Your task to perform on an android device: toggle notification dots Image 0: 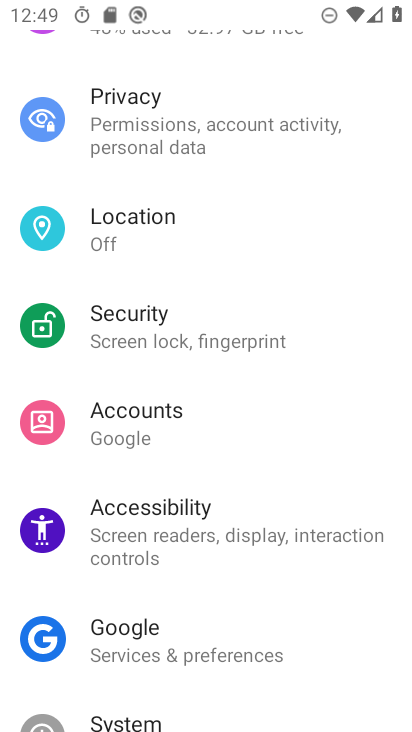
Step 0: drag from (204, 119) to (183, 510)
Your task to perform on an android device: toggle notification dots Image 1: 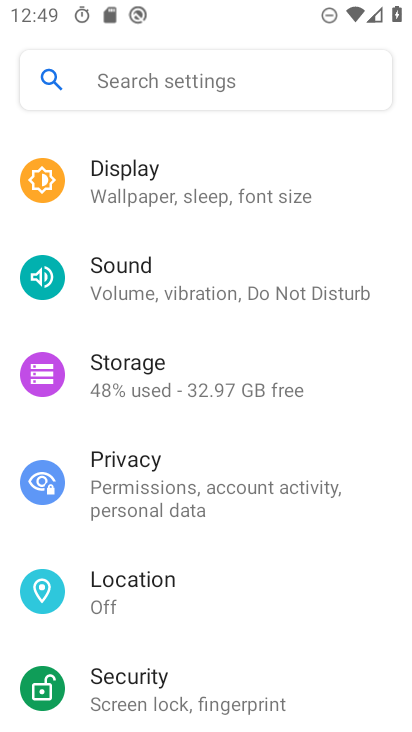
Step 1: drag from (184, 168) to (188, 556)
Your task to perform on an android device: toggle notification dots Image 2: 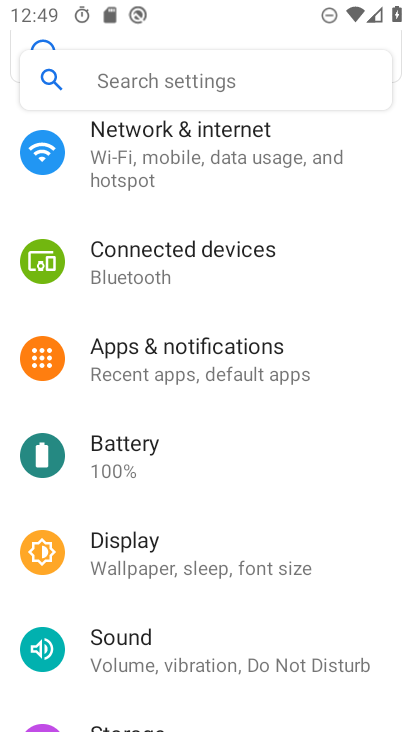
Step 2: click (210, 365)
Your task to perform on an android device: toggle notification dots Image 3: 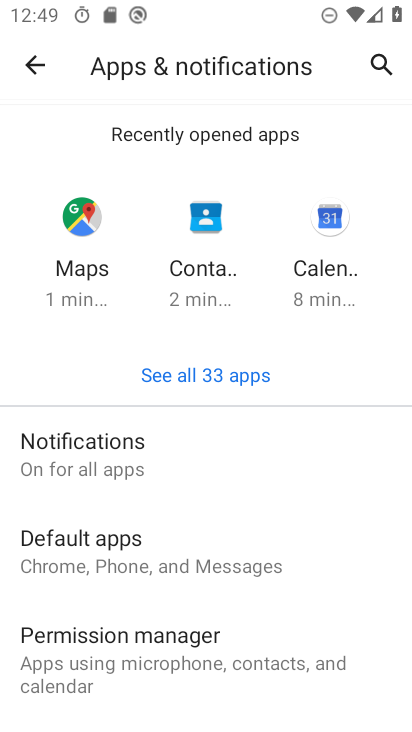
Step 3: click (144, 478)
Your task to perform on an android device: toggle notification dots Image 4: 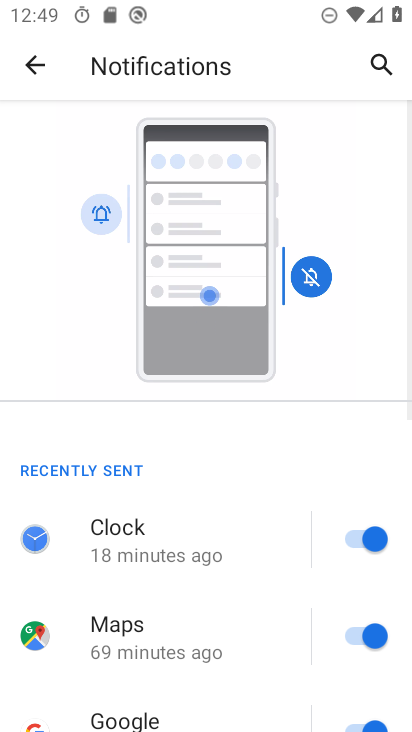
Step 4: drag from (103, 633) to (291, 21)
Your task to perform on an android device: toggle notification dots Image 5: 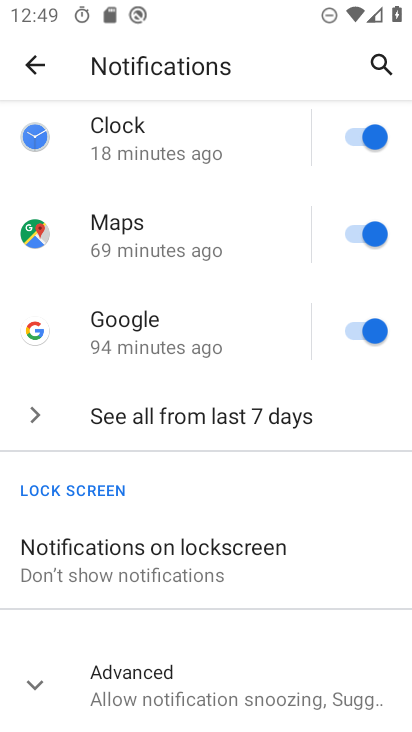
Step 5: click (186, 680)
Your task to perform on an android device: toggle notification dots Image 6: 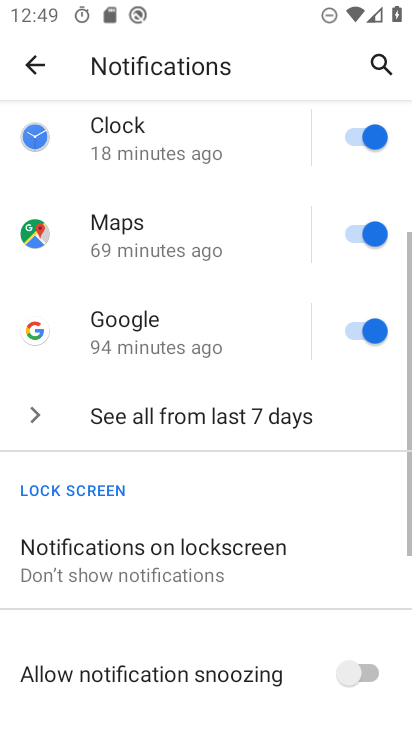
Step 6: drag from (186, 680) to (237, 377)
Your task to perform on an android device: toggle notification dots Image 7: 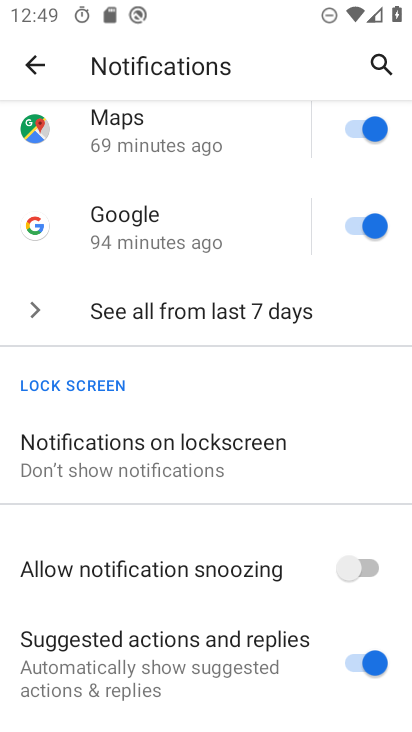
Step 7: drag from (127, 646) to (204, 64)
Your task to perform on an android device: toggle notification dots Image 8: 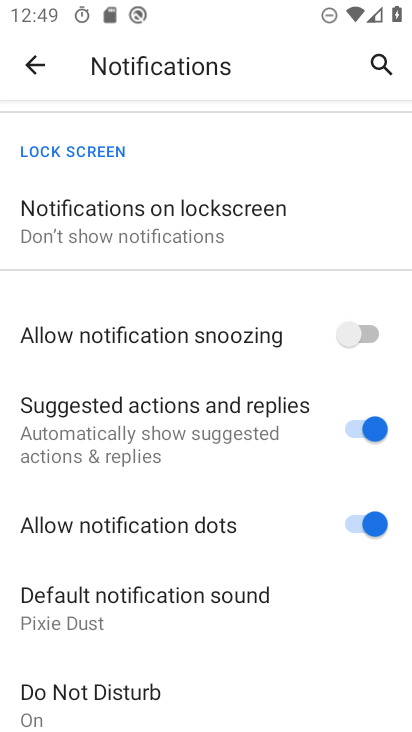
Step 8: click (360, 522)
Your task to perform on an android device: toggle notification dots Image 9: 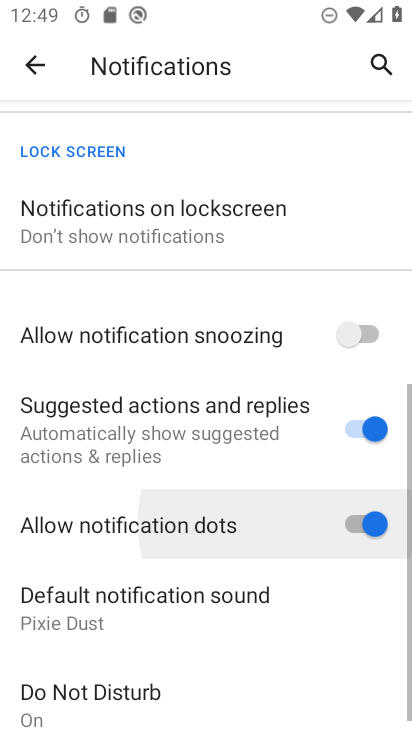
Step 9: click (360, 522)
Your task to perform on an android device: toggle notification dots Image 10: 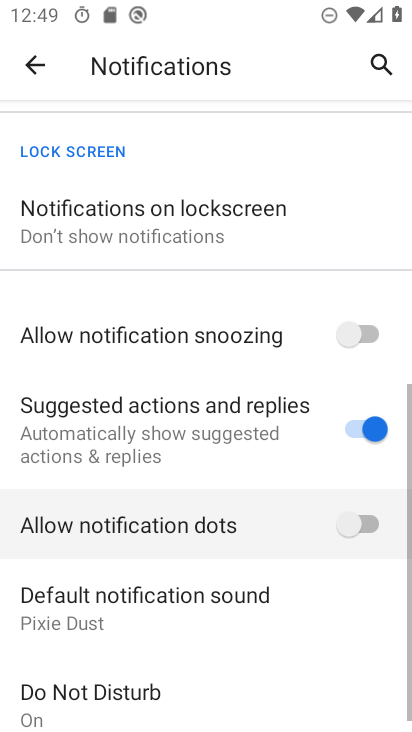
Step 10: click (360, 522)
Your task to perform on an android device: toggle notification dots Image 11: 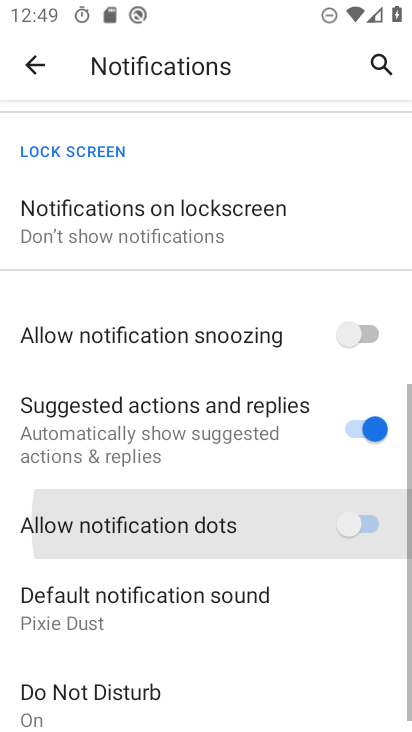
Step 11: click (360, 522)
Your task to perform on an android device: toggle notification dots Image 12: 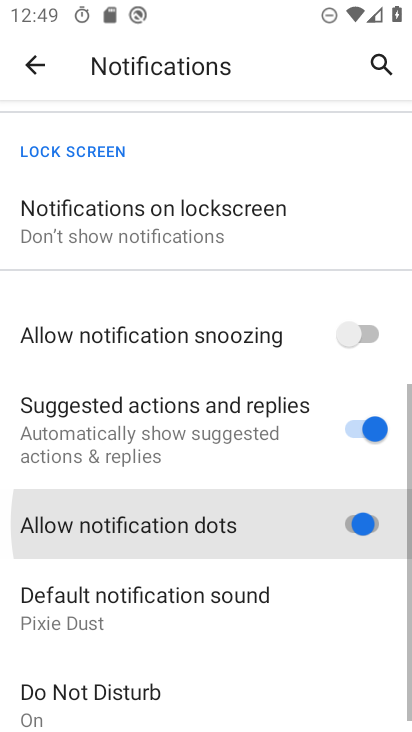
Step 12: click (360, 522)
Your task to perform on an android device: toggle notification dots Image 13: 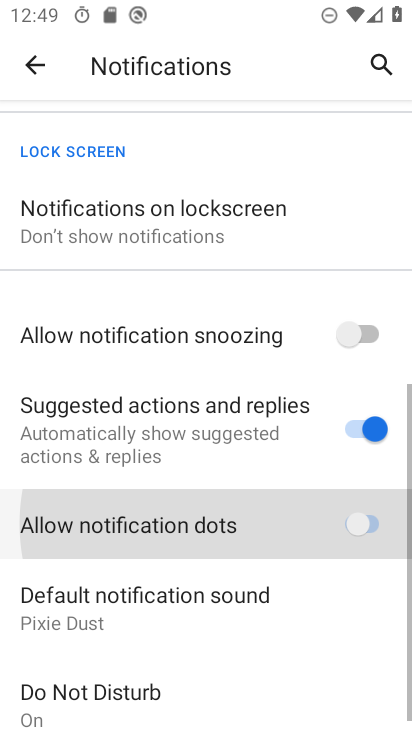
Step 13: click (360, 522)
Your task to perform on an android device: toggle notification dots Image 14: 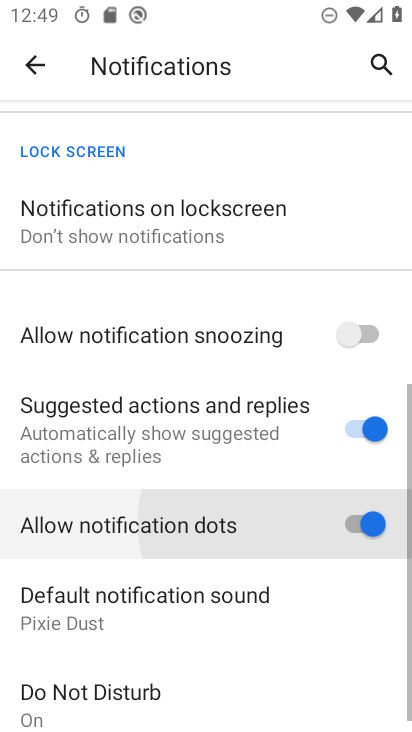
Step 14: click (360, 522)
Your task to perform on an android device: toggle notification dots Image 15: 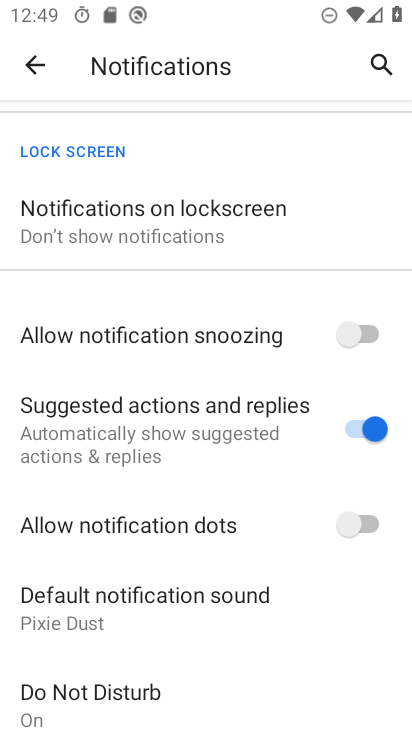
Step 15: task complete